Your task to perform on an android device: Search for Italian restaurants on Maps Image 0: 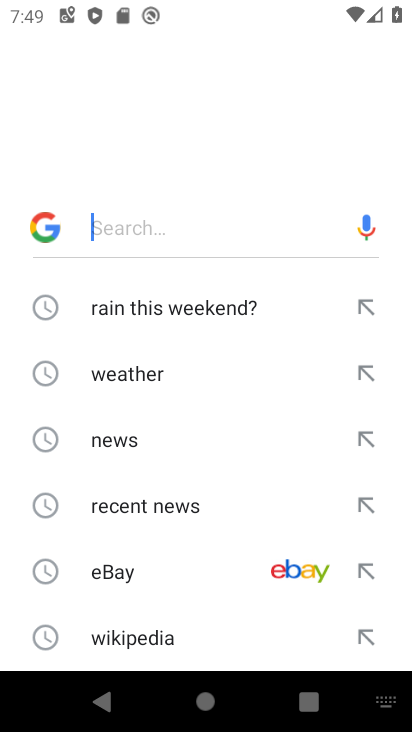
Step 0: press home button
Your task to perform on an android device: Search for Italian restaurants on Maps Image 1: 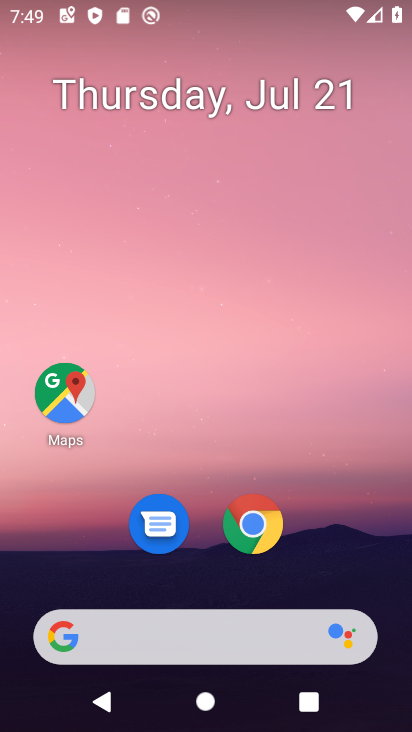
Step 1: click (69, 405)
Your task to perform on an android device: Search for Italian restaurants on Maps Image 2: 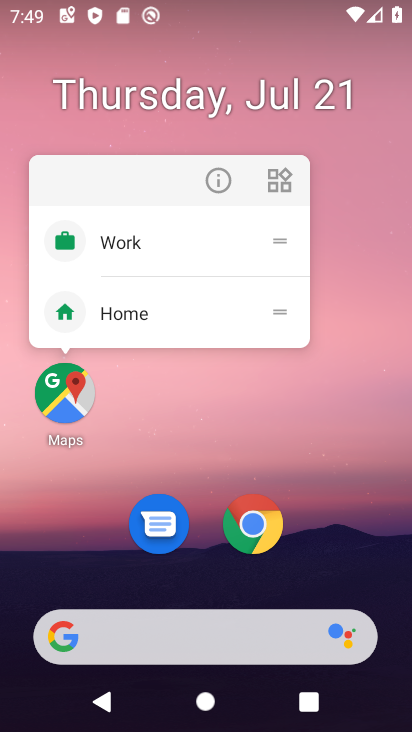
Step 2: click (63, 395)
Your task to perform on an android device: Search for Italian restaurants on Maps Image 3: 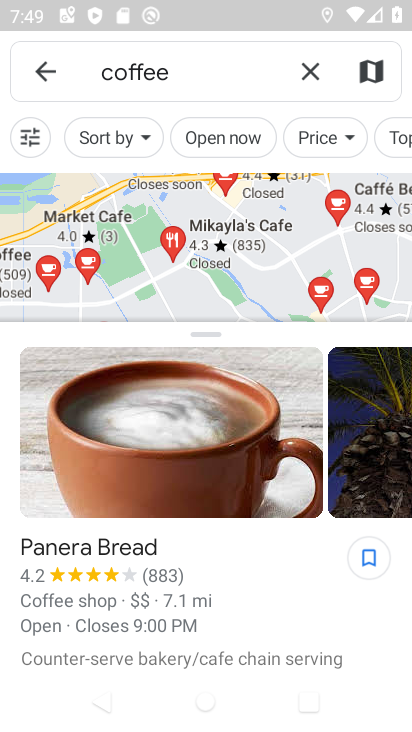
Step 3: click (310, 71)
Your task to perform on an android device: Search for Italian restaurants on Maps Image 4: 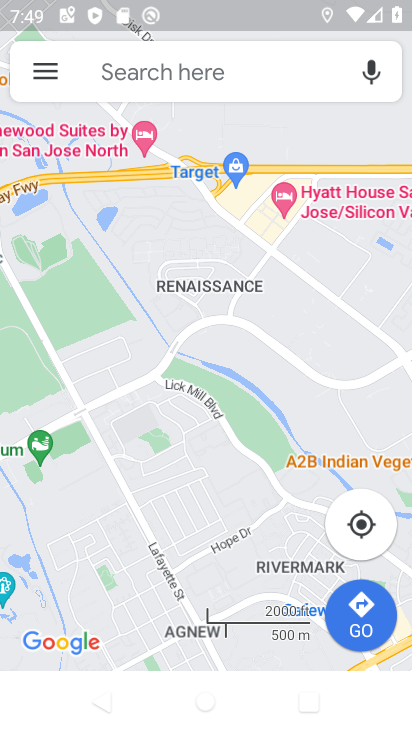
Step 4: click (207, 66)
Your task to perform on an android device: Search for Italian restaurants on Maps Image 5: 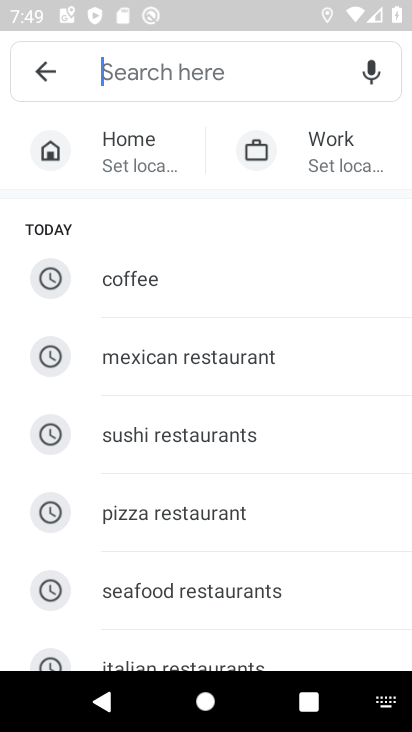
Step 5: drag from (292, 527) to (388, 195)
Your task to perform on an android device: Search for Italian restaurants on Maps Image 6: 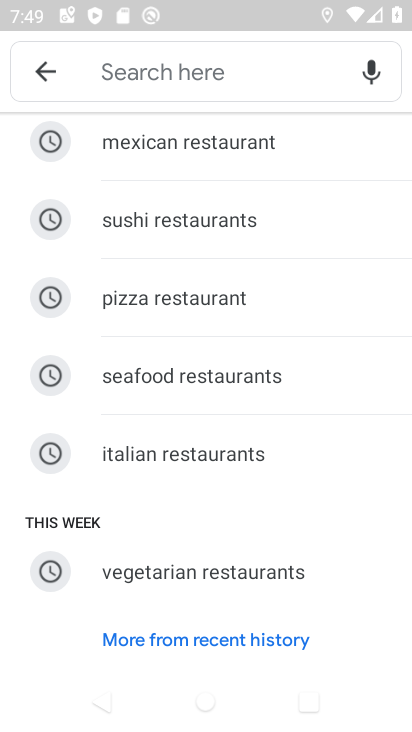
Step 6: click (176, 455)
Your task to perform on an android device: Search for Italian restaurants on Maps Image 7: 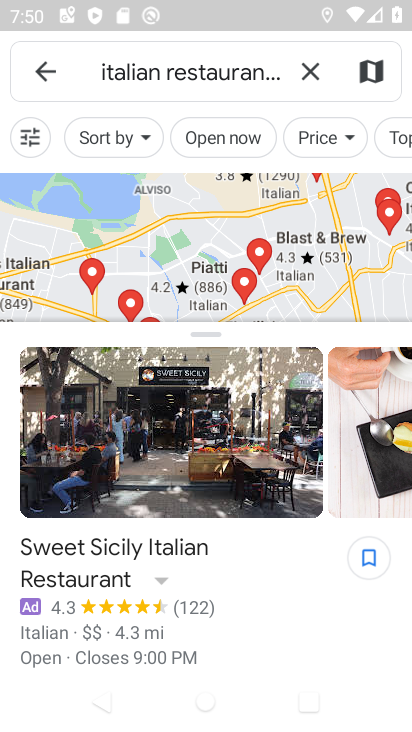
Step 7: task complete